Your task to perform on an android device: Open internet settings Image 0: 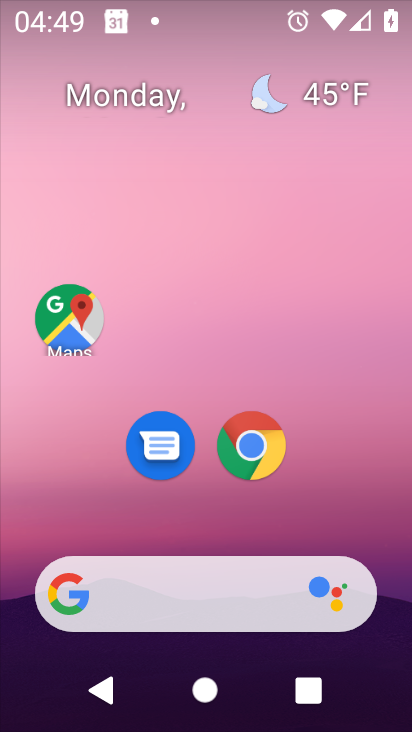
Step 0: drag from (326, 502) to (316, 108)
Your task to perform on an android device: Open internet settings Image 1: 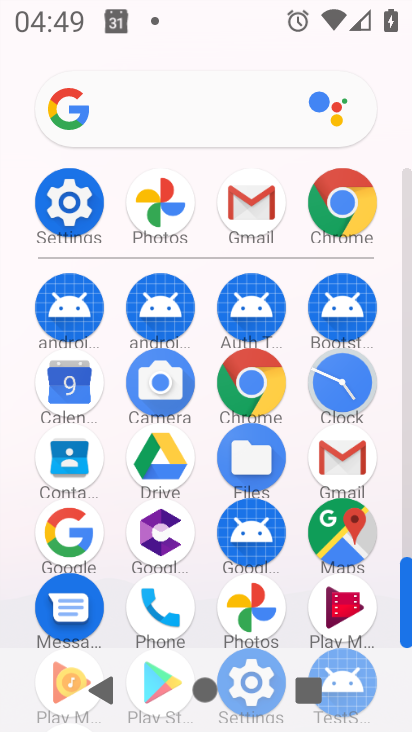
Step 1: click (86, 196)
Your task to perform on an android device: Open internet settings Image 2: 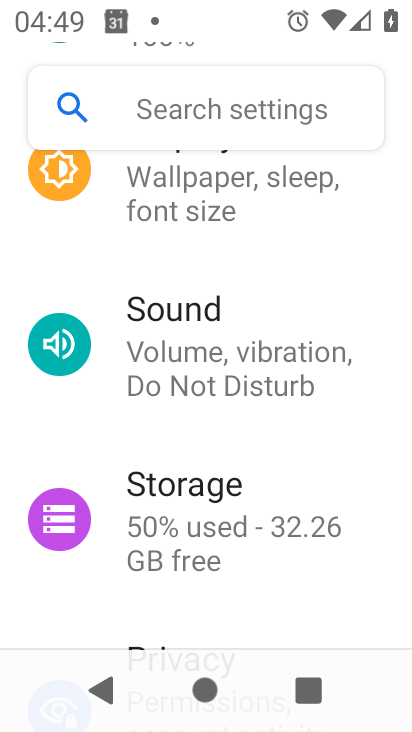
Step 2: drag from (209, 231) to (303, 521)
Your task to perform on an android device: Open internet settings Image 3: 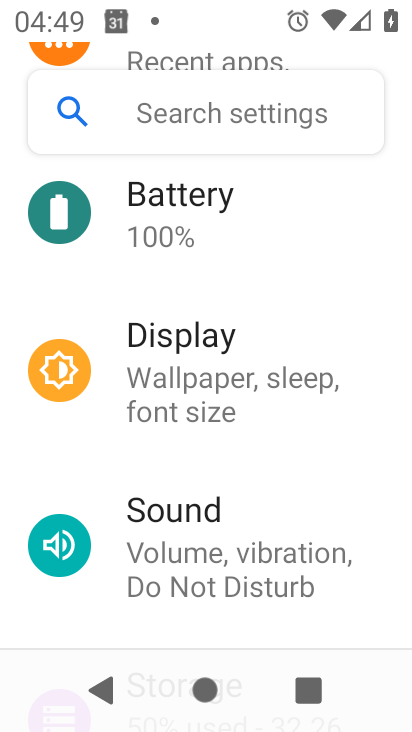
Step 3: drag from (250, 337) to (273, 691)
Your task to perform on an android device: Open internet settings Image 4: 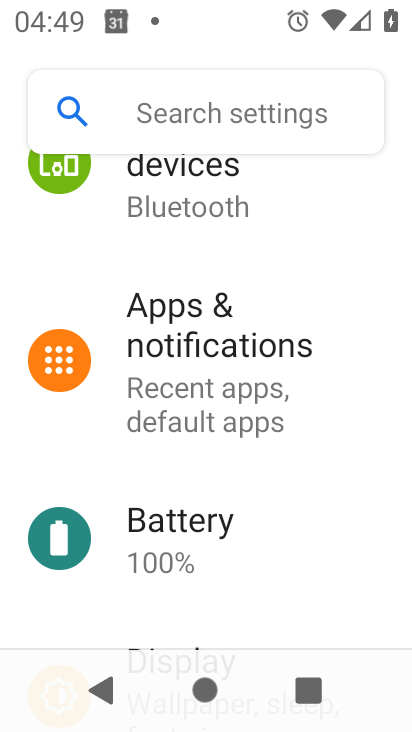
Step 4: drag from (222, 361) to (262, 731)
Your task to perform on an android device: Open internet settings Image 5: 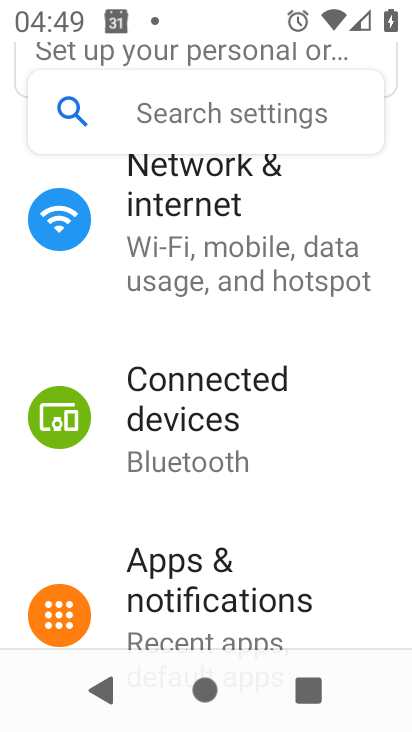
Step 5: click (218, 290)
Your task to perform on an android device: Open internet settings Image 6: 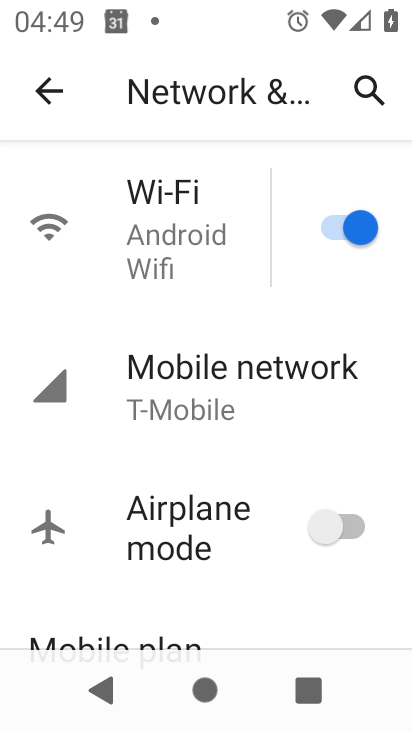
Step 6: click (127, 365)
Your task to perform on an android device: Open internet settings Image 7: 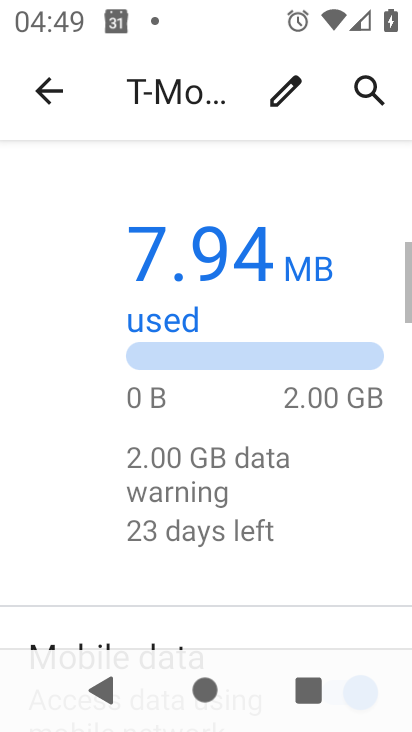
Step 7: task complete